Your task to perform on an android device: turn off smart reply in the gmail app Image 0: 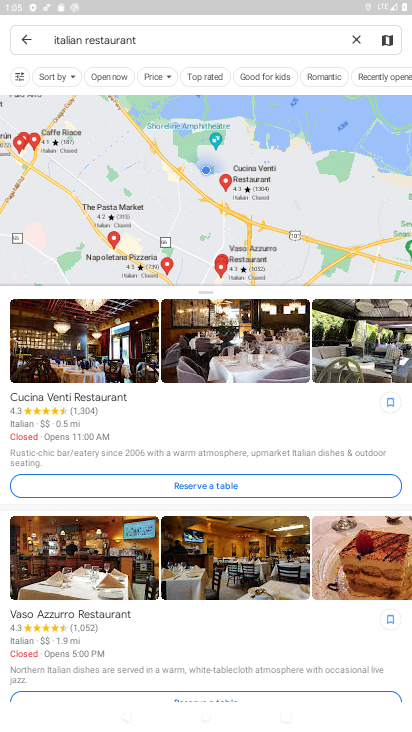
Step 0: press home button
Your task to perform on an android device: turn off smart reply in the gmail app Image 1: 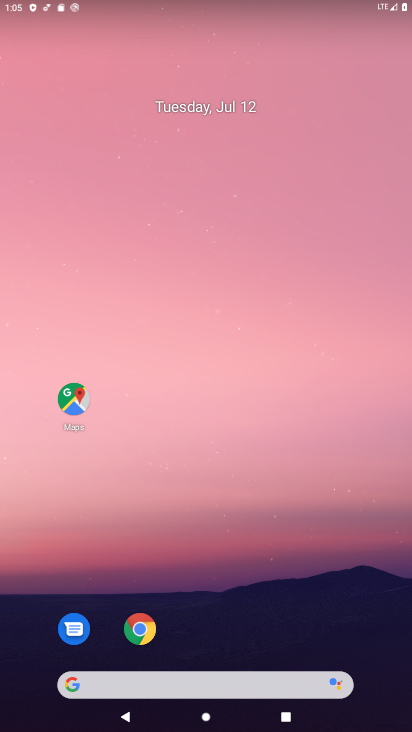
Step 1: drag from (341, 700) to (306, 13)
Your task to perform on an android device: turn off smart reply in the gmail app Image 2: 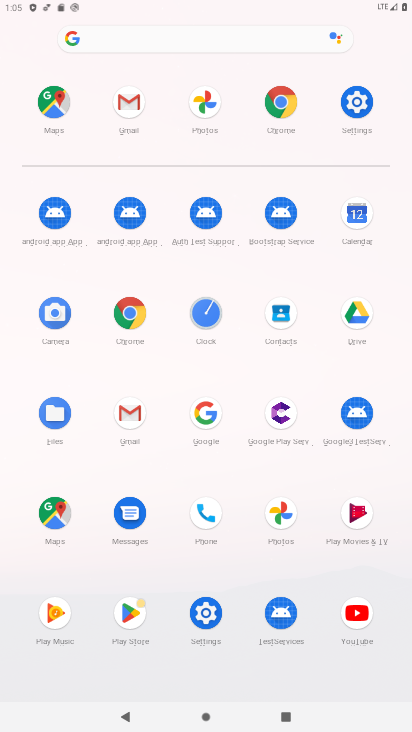
Step 2: click (124, 404)
Your task to perform on an android device: turn off smart reply in the gmail app Image 3: 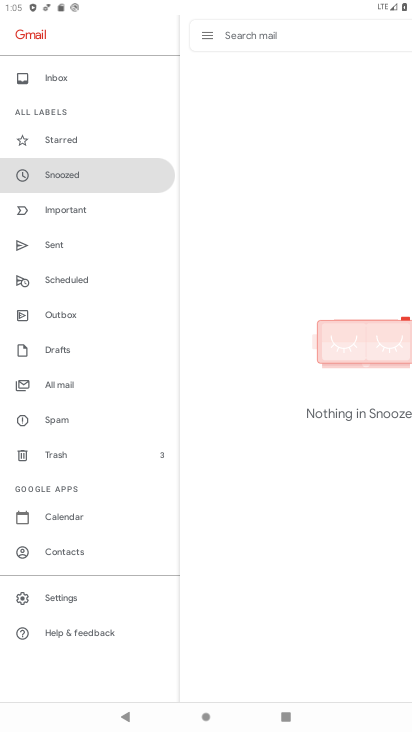
Step 3: click (83, 601)
Your task to perform on an android device: turn off smart reply in the gmail app Image 4: 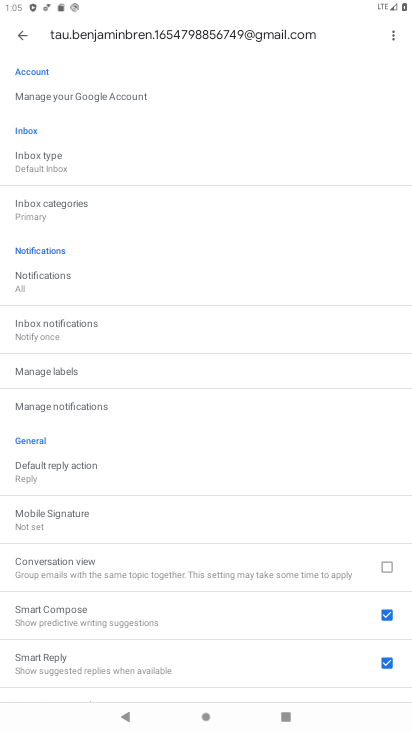
Step 4: click (385, 658)
Your task to perform on an android device: turn off smart reply in the gmail app Image 5: 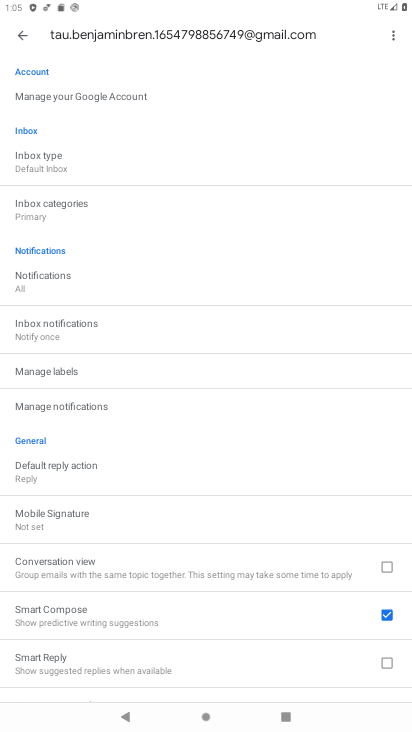
Step 5: task complete